Your task to perform on an android device: Go to battery settings Image 0: 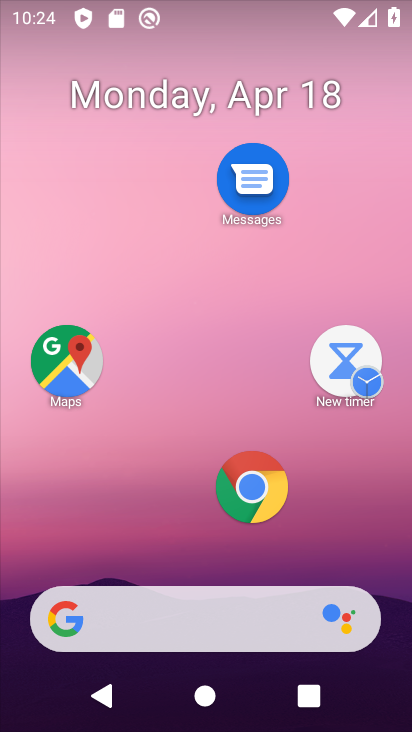
Step 0: drag from (177, 584) to (273, 19)
Your task to perform on an android device: Go to battery settings Image 1: 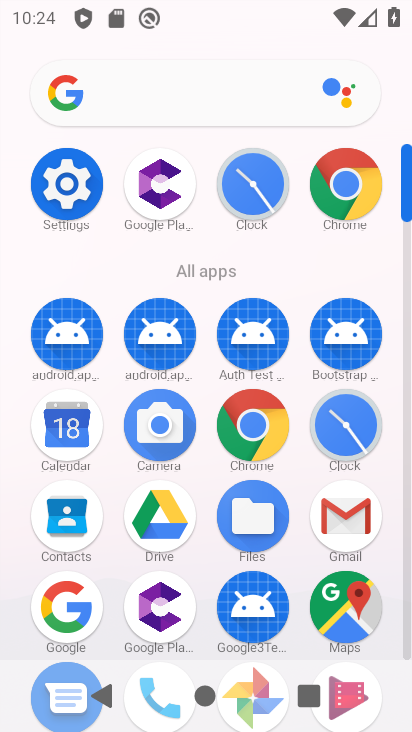
Step 1: drag from (200, 619) to (333, 201)
Your task to perform on an android device: Go to battery settings Image 2: 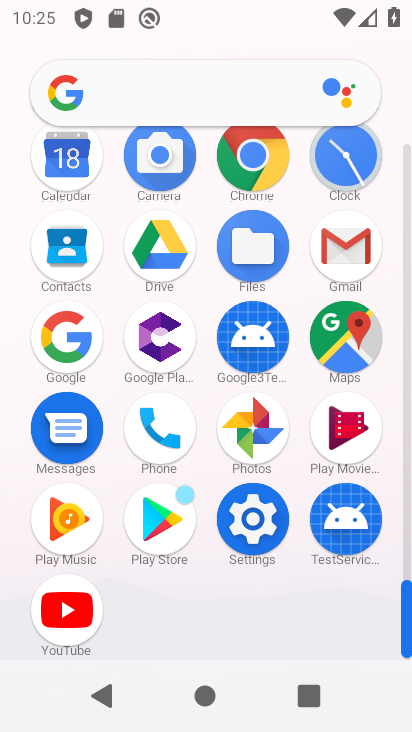
Step 2: click (234, 545)
Your task to perform on an android device: Go to battery settings Image 3: 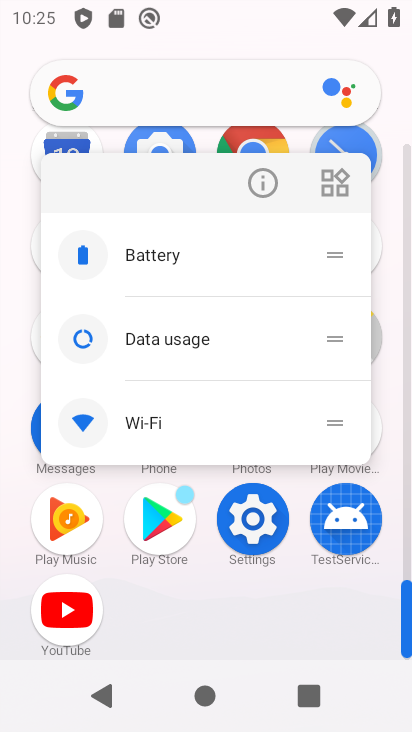
Step 3: click (255, 528)
Your task to perform on an android device: Go to battery settings Image 4: 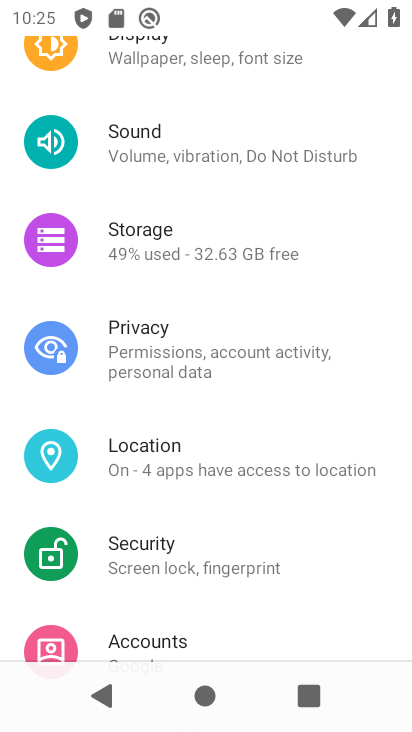
Step 4: drag from (202, 206) to (159, 582)
Your task to perform on an android device: Go to battery settings Image 5: 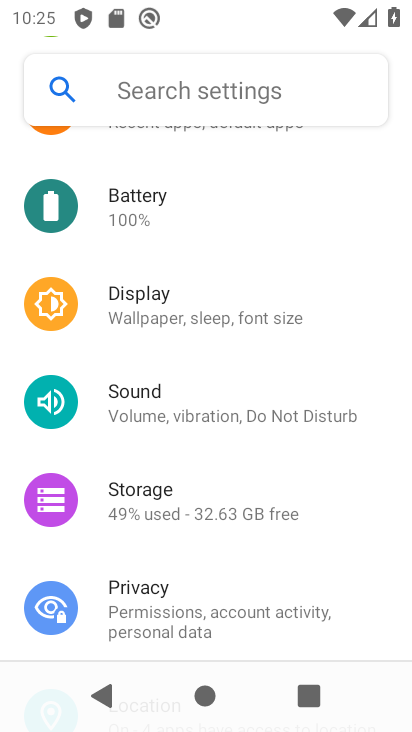
Step 5: drag from (226, 232) to (181, 521)
Your task to perform on an android device: Go to battery settings Image 6: 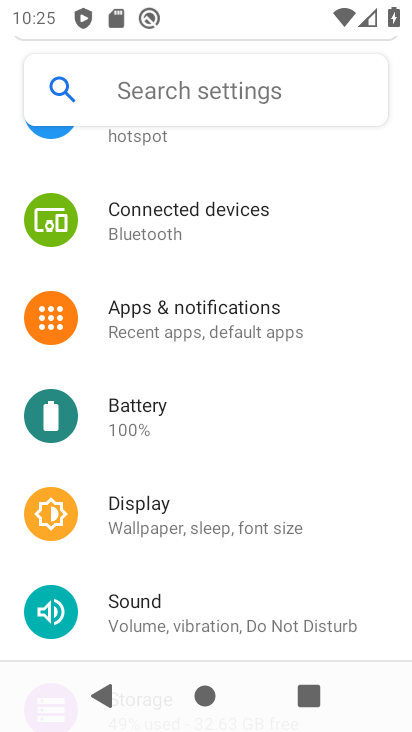
Step 6: drag from (200, 260) to (153, 528)
Your task to perform on an android device: Go to battery settings Image 7: 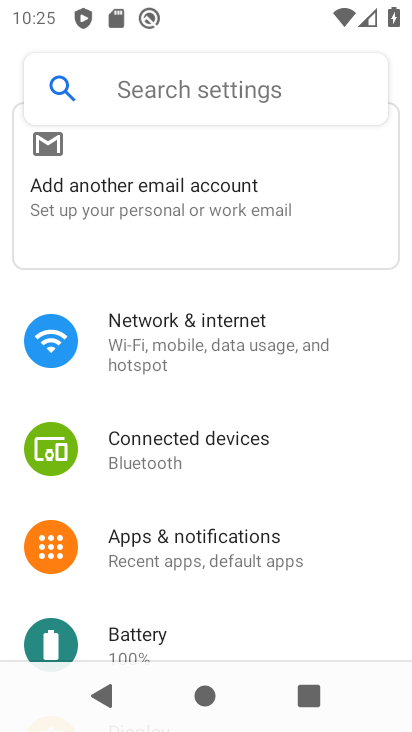
Step 7: click (158, 626)
Your task to perform on an android device: Go to battery settings Image 8: 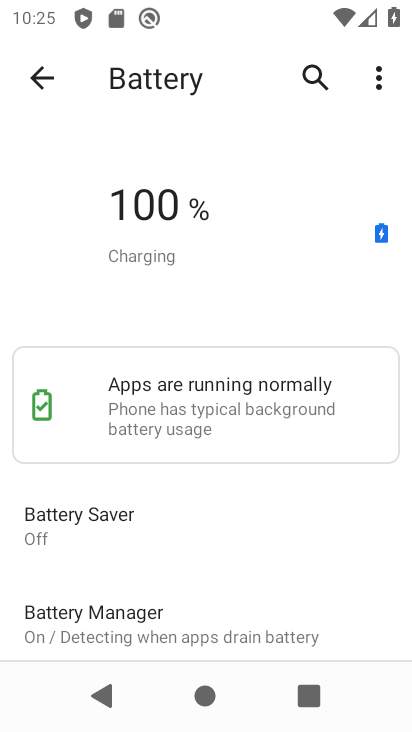
Step 8: task complete